Your task to perform on an android device: open sync settings in chrome Image 0: 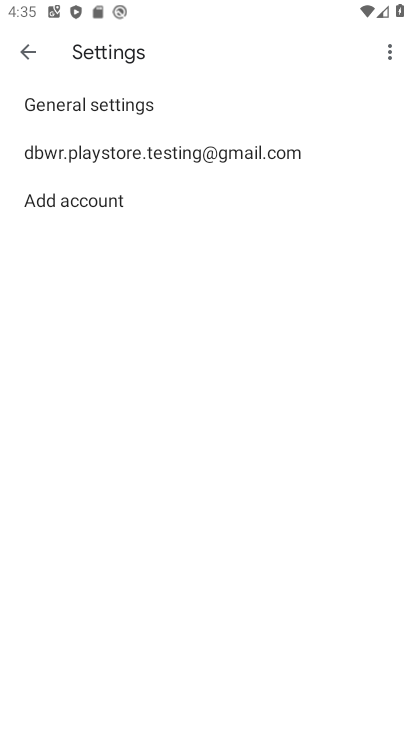
Step 0: press home button
Your task to perform on an android device: open sync settings in chrome Image 1: 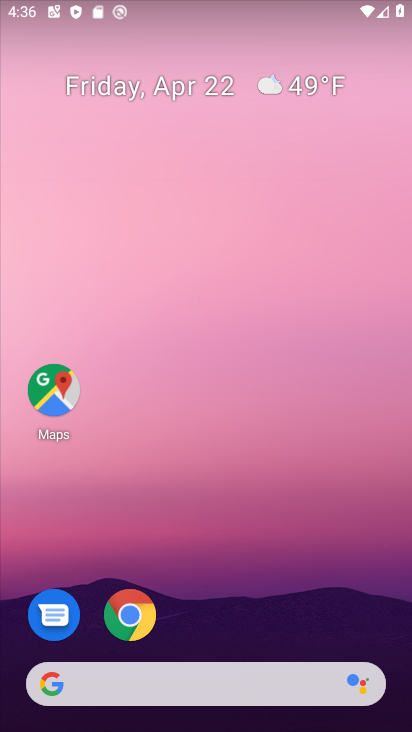
Step 1: click (153, 610)
Your task to perform on an android device: open sync settings in chrome Image 2: 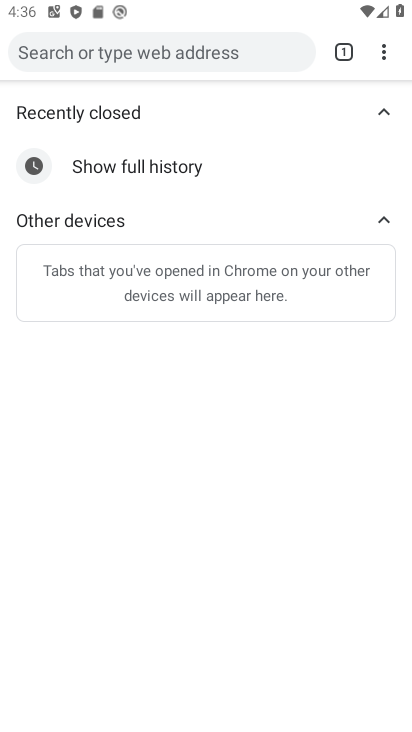
Step 2: drag from (378, 46) to (220, 493)
Your task to perform on an android device: open sync settings in chrome Image 3: 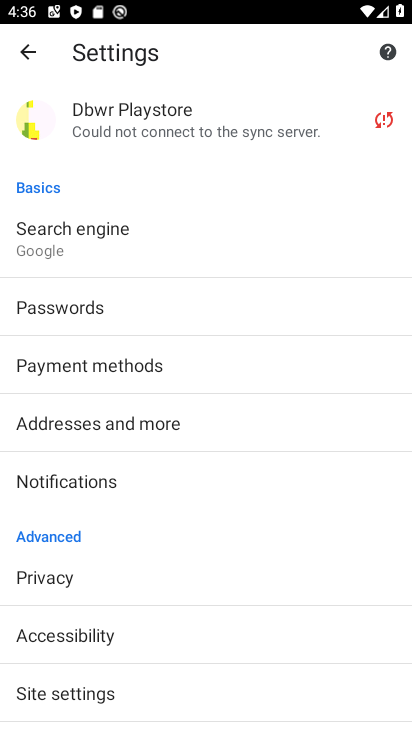
Step 3: click (119, 122)
Your task to perform on an android device: open sync settings in chrome Image 4: 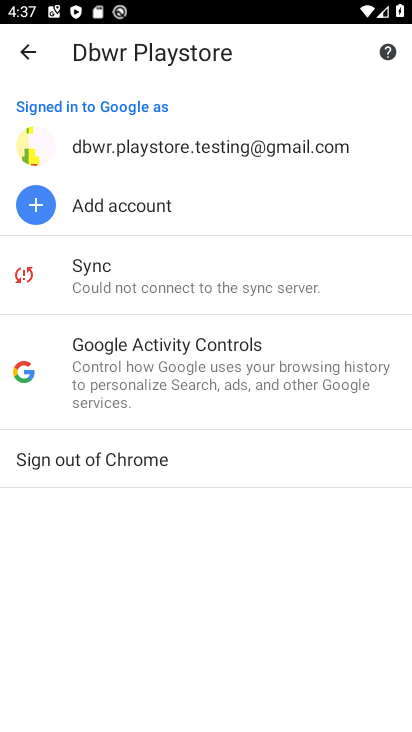
Step 4: click (146, 266)
Your task to perform on an android device: open sync settings in chrome Image 5: 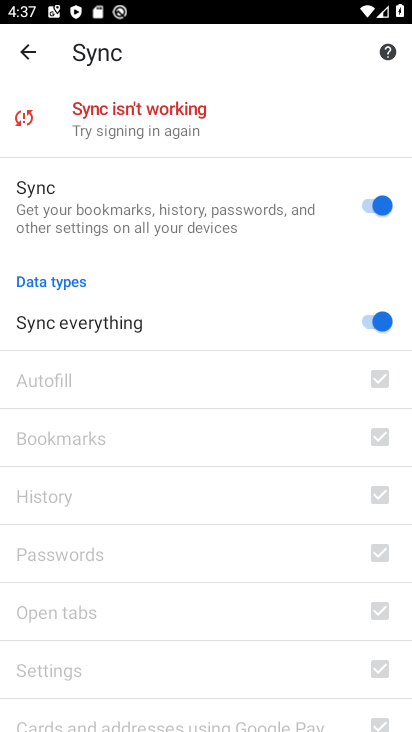
Step 5: task complete